Your task to perform on an android device: snooze an email in the gmail app Image 0: 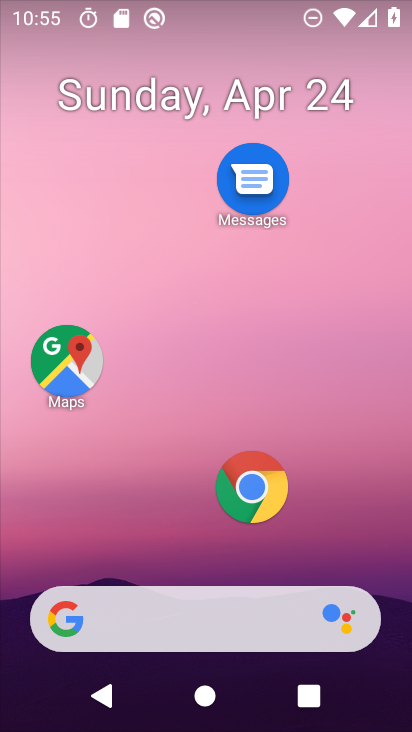
Step 0: drag from (163, 483) to (219, 7)
Your task to perform on an android device: snooze an email in the gmail app Image 1: 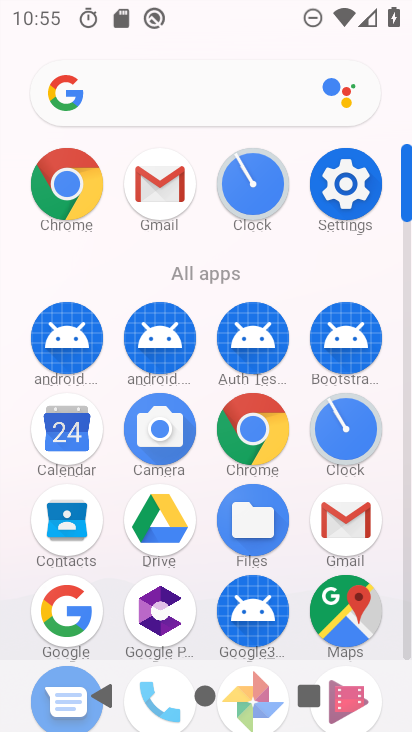
Step 1: click (348, 520)
Your task to perform on an android device: snooze an email in the gmail app Image 2: 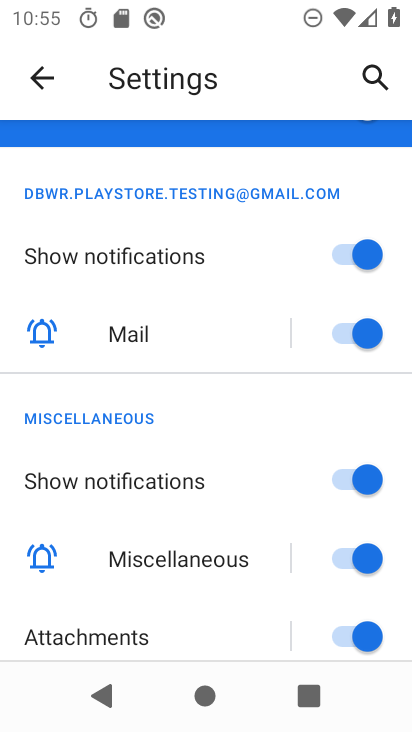
Step 2: click (47, 74)
Your task to perform on an android device: snooze an email in the gmail app Image 3: 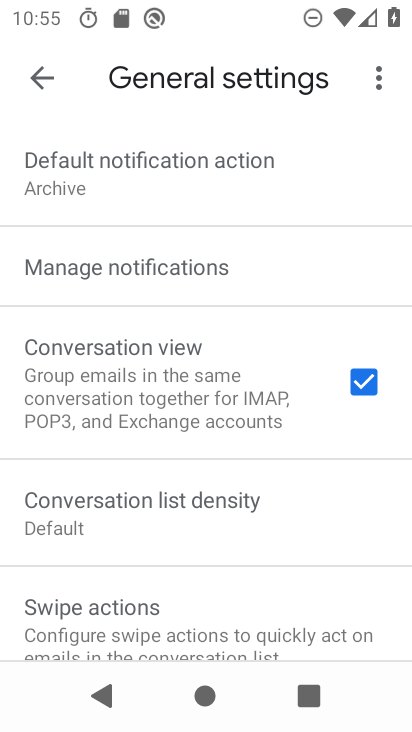
Step 3: click (49, 77)
Your task to perform on an android device: snooze an email in the gmail app Image 4: 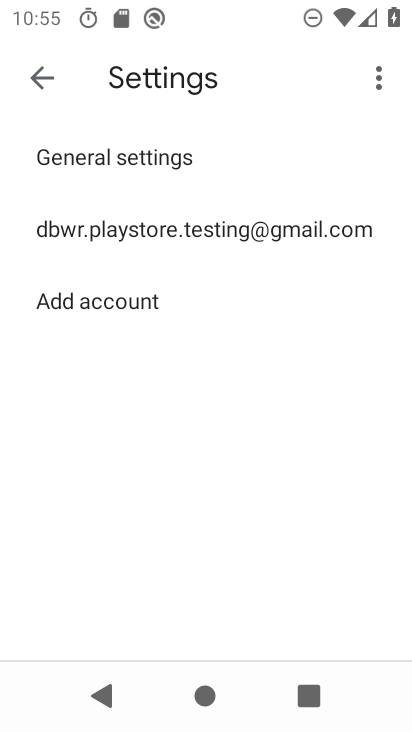
Step 4: click (40, 56)
Your task to perform on an android device: snooze an email in the gmail app Image 5: 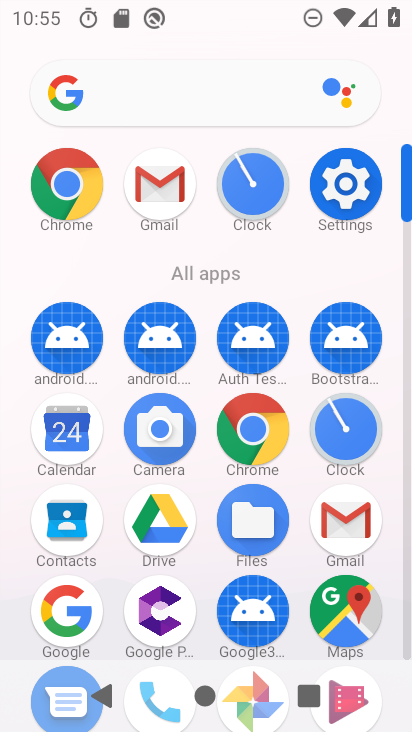
Step 5: click (356, 522)
Your task to perform on an android device: snooze an email in the gmail app Image 6: 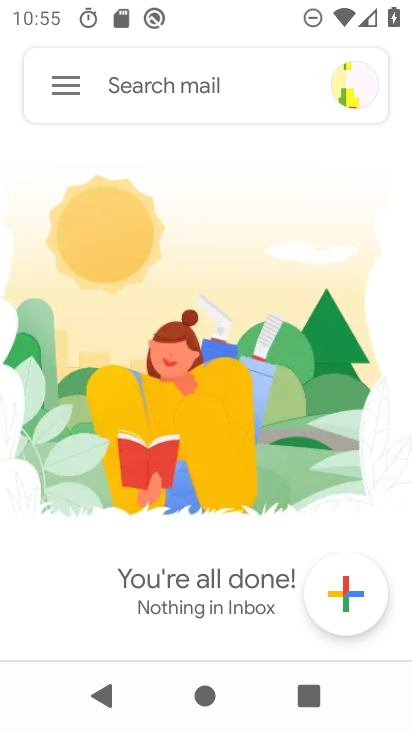
Step 6: click (59, 80)
Your task to perform on an android device: snooze an email in the gmail app Image 7: 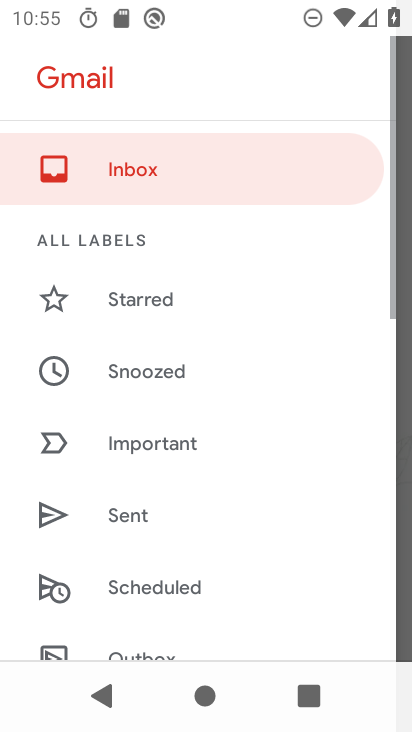
Step 7: drag from (112, 534) to (168, 252)
Your task to perform on an android device: snooze an email in the gmail app Image 8: 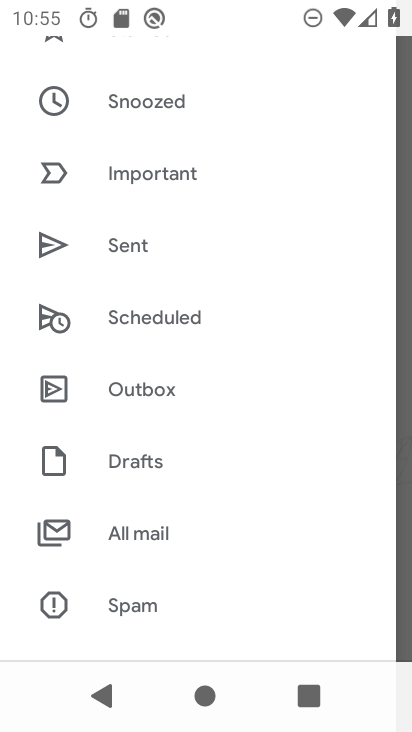
Step 8: click (143, 539)
Your task to perform on an android device: snooze an email in the gmail app Image 9: 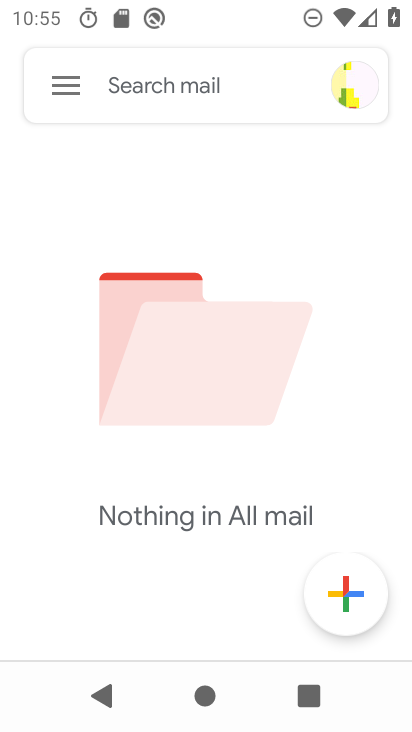
Step 9: task complete